Your task to perform on an android device: Clear the shopping cart on amazon.com. Search for apple airpods on amazon.com, select the first entry, and add it to the cart. Image 0: 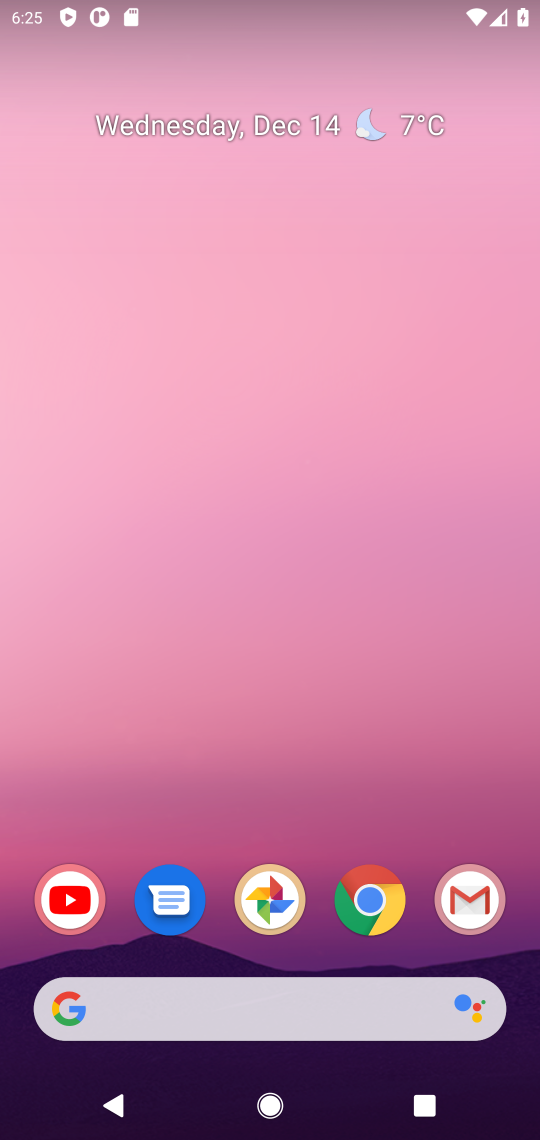
Step 0: click (271, 1016)
Your task to perform on an android device: Clear the shopping cart on amazon.com. Search for apple airpods on amazon.com, select the first entry, and add it to the cart. Image 1: 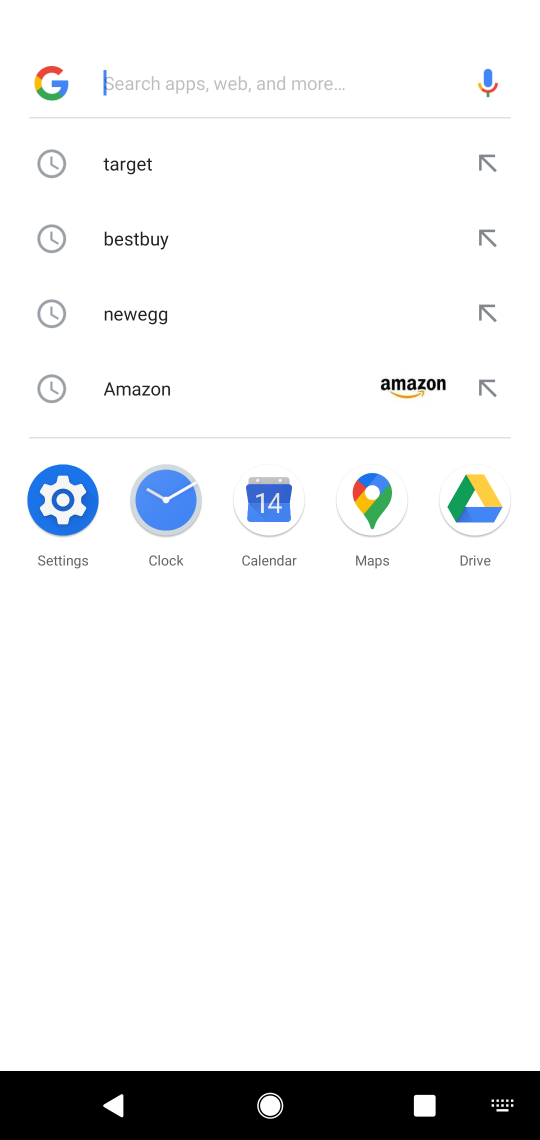
Step 1: click (352, 383)
Your task to perform on an android device: Clear the shopping cart on amazon.com. Search for apple airpods on amazon.com, select the first entry, and add it to the cart. Image 2: 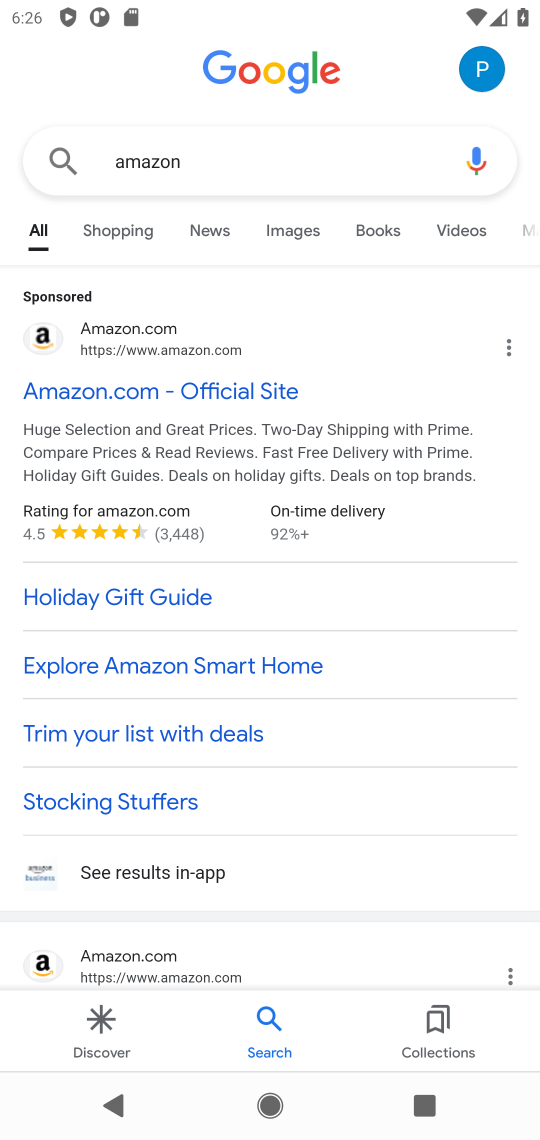
Step 2: click (135, 334)
Your task to perform on an android device: Clear the shopping cart on amazon.com. Search for apple airpods on amazon.com, select the first entry, and add it to the cart. Image 3: 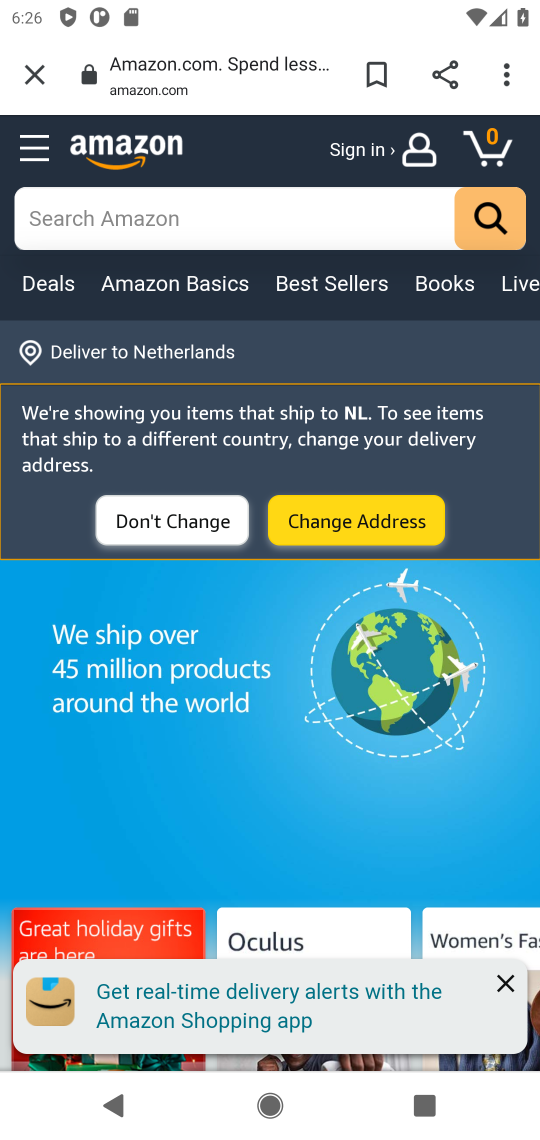
Step 3: click (306, 211)
Your task to perform on an android device: Clear the shopping cart on amazon.com. Search for apple airpods on amazon.com, select the first entry, and add it to the cart. Image 4: 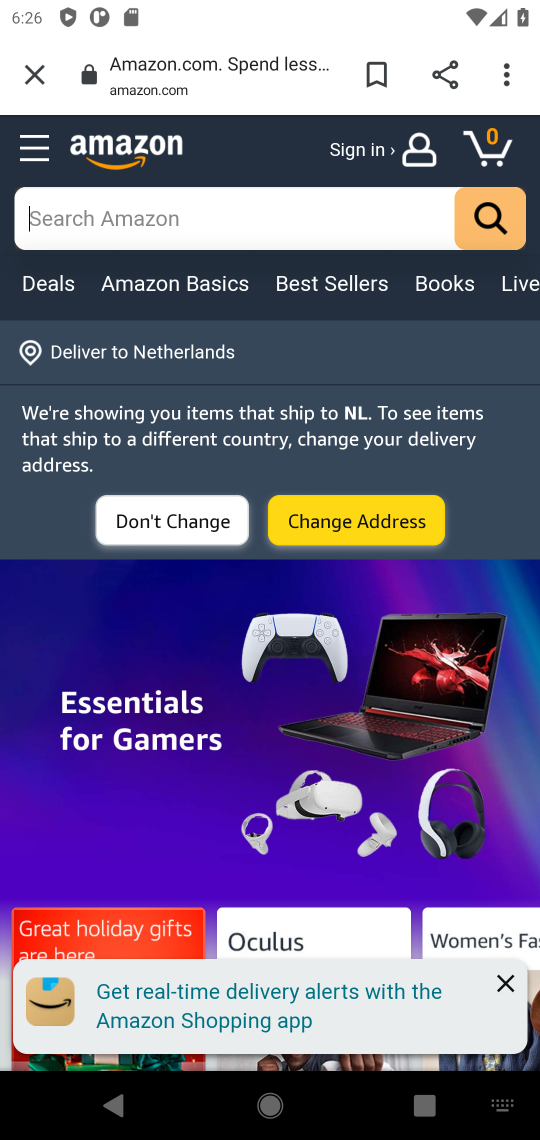
Step 4: type "apple airpods "
Your task to perform on an android device: Clear the shopping cart on amazon.com. Search for apple airpods on amazon.com, select the first entry, and add it to the cart. Image 5: 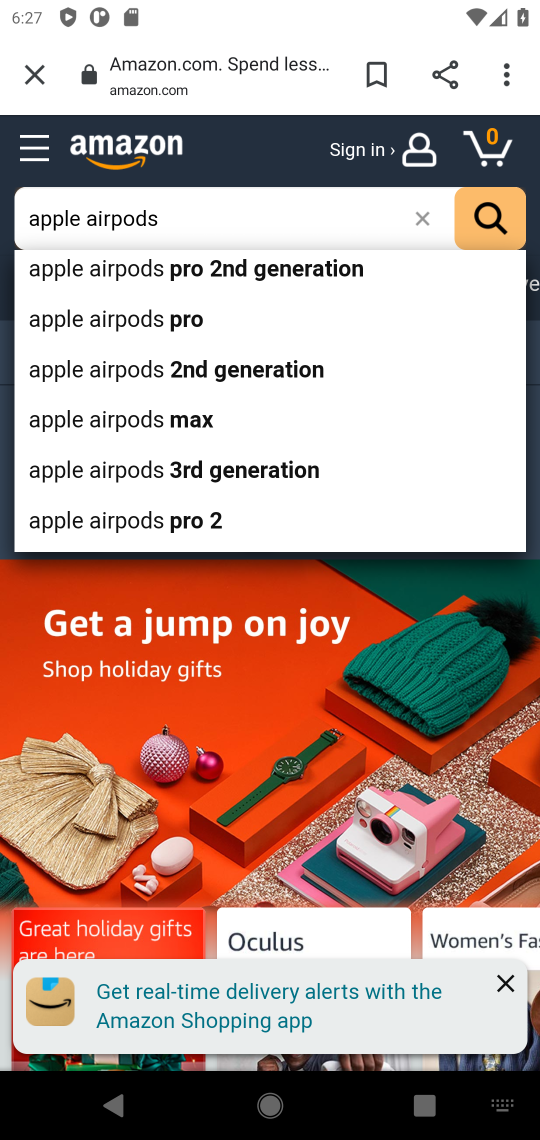
Step 5: click (493, 202)
Your task to perform on an android device: Clear the shopping cart on amazon.com. Search for apple airpods on amazon.com, select the first entry, and add it to the cart. Image 6: 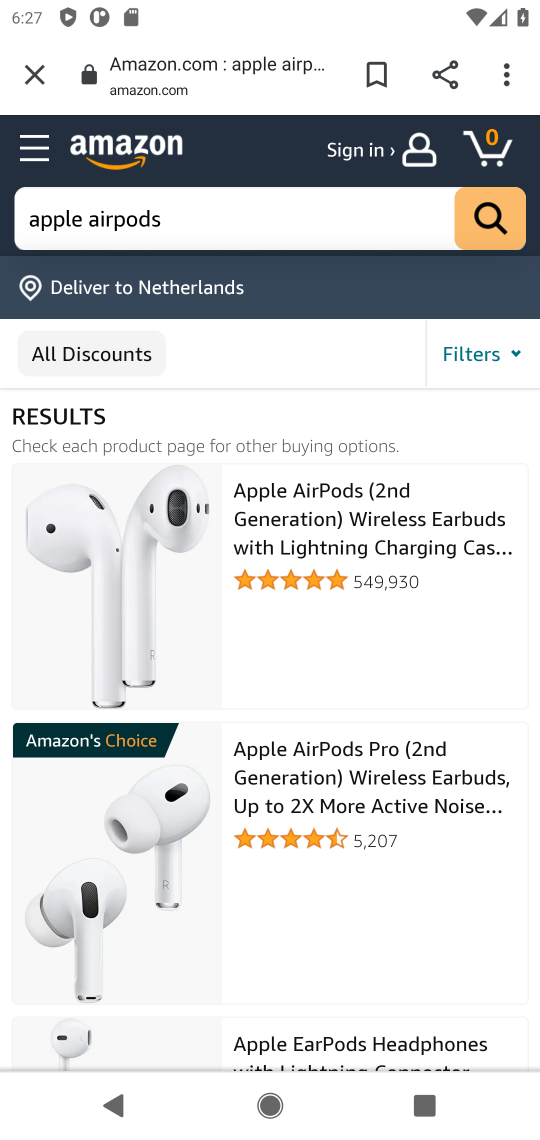
Step 6: click (343, 503)
Your task to perform on an android device: Clear the shopping cart on amazon.com. Search for apple airpods on amazon.com, select the first entry, and add it to the cart. Image 7: 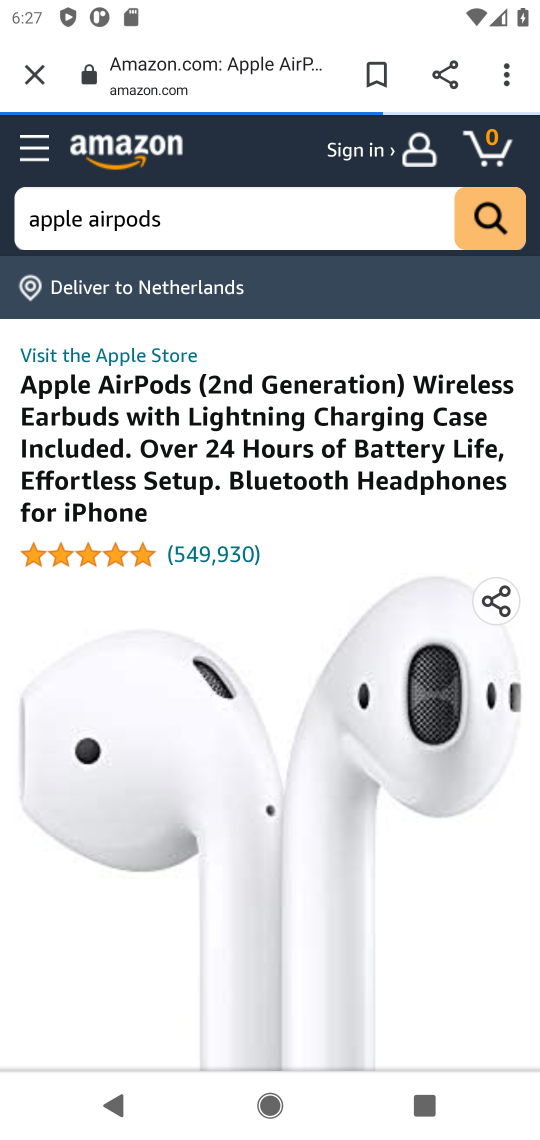
Step 7: click (341, 407)
Your task to perform on an android device: Clear the shopping cart on amazon.com. Search for apple airpods on amazon.com, select the first entry, and add it to the cart. Image 8: 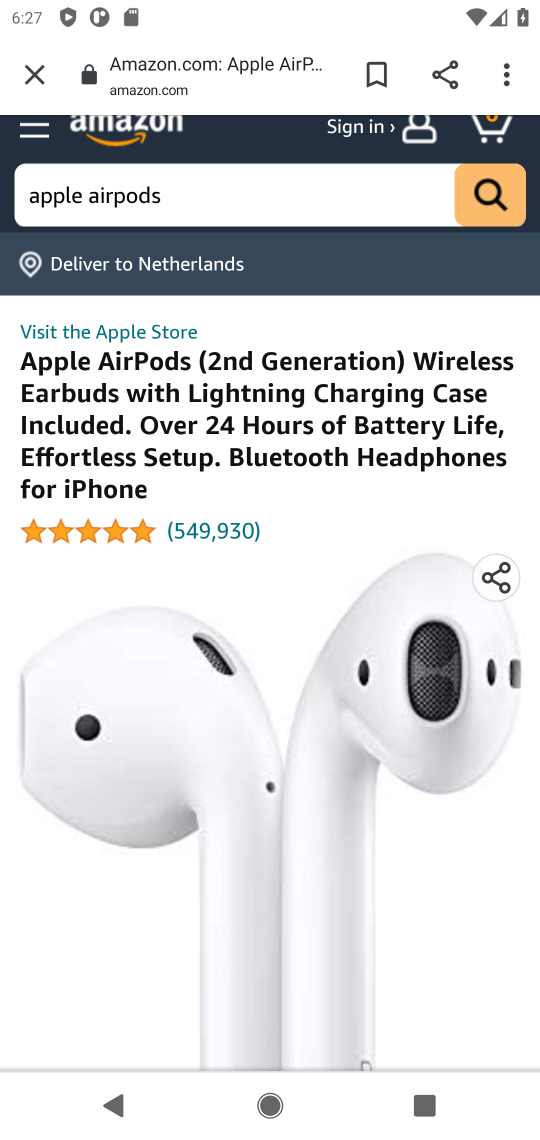
Step 8: task complete